Your task to perform on an android device: What's the weather going to be this weekend? Image 0: 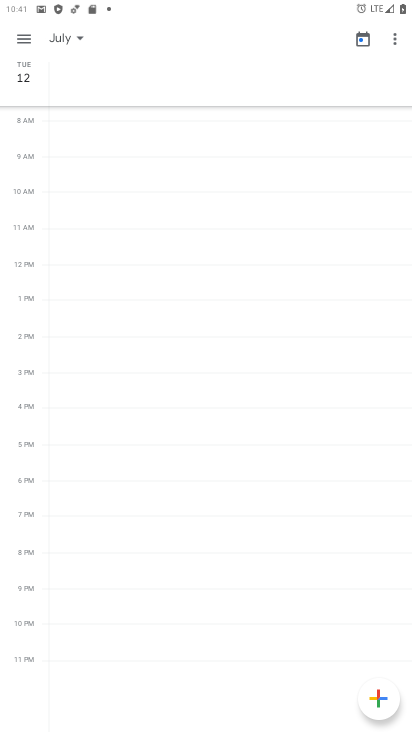
Step 0: press home button
Your task to perform on an android device: What's the weather going to be this weekend? Image 1: 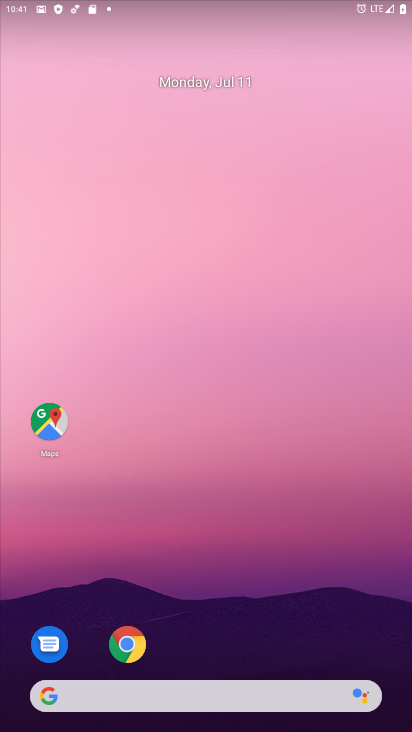
Step 1: drag from (235, 638) to (223, 345)
Your task to perform on an android device: What's the weather going to be this weekend? Image 2: 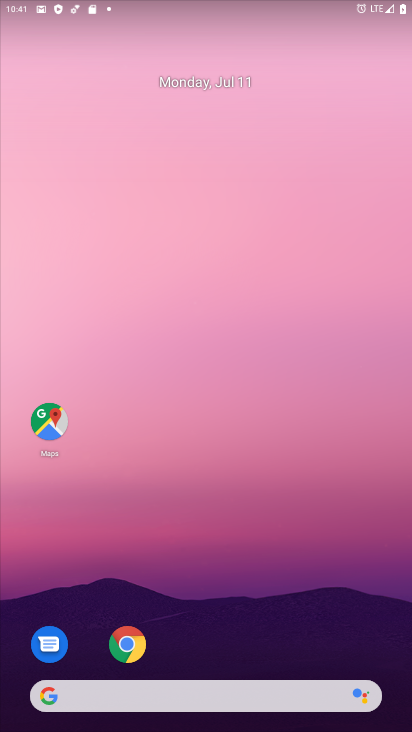
Step 2: drag from (212, 660) to (206, 333)
Your task to perform on an android device: What's the weather going to be this weekend? Image 3: 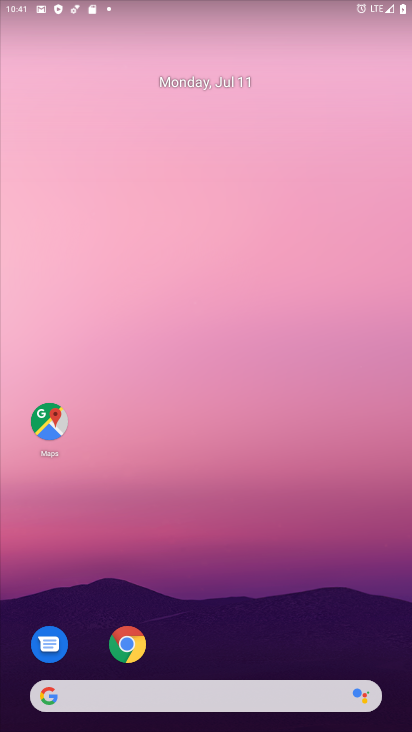
Step 3: click (128, 651)
Your task to perform on an android device: What's the weather going to be this weekend? Image 4: 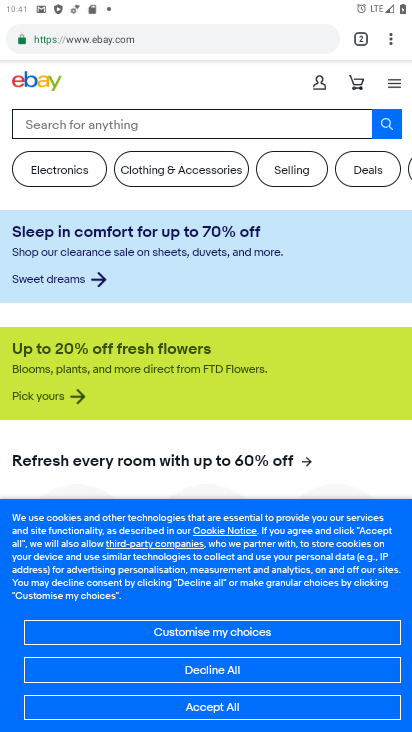
Step 4: click (392, 42)
Your task to perform on an android device: What's the weather going to be this weekend? Image 5: 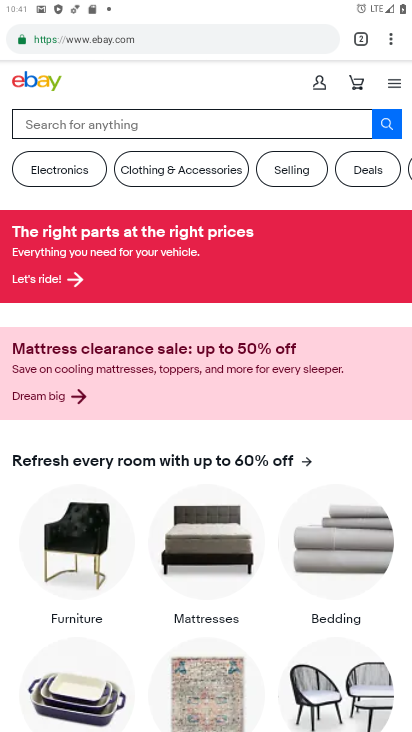
Step 5: click (390, 42)
Your task to perform on an android device: What's the weather going to be this weekend? Image 6: 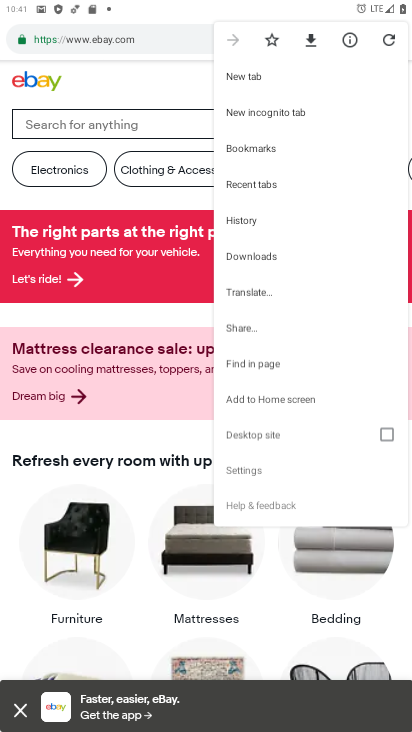
Step 6: click (395, 30)
Your task to perform on an android device: What's the weather going to be this weekend? Image 7: 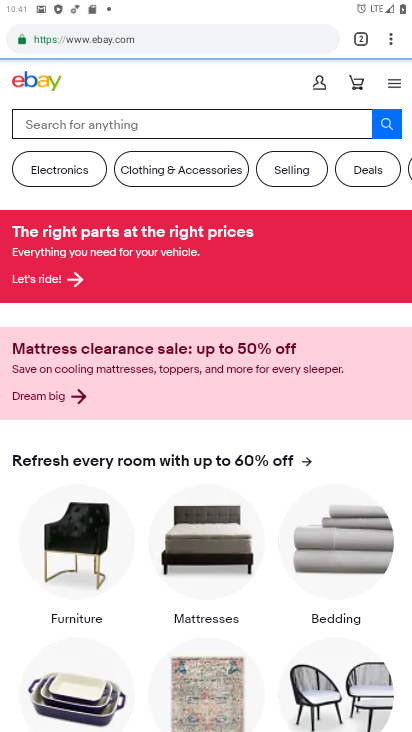
Step 7: click (398, 34)
Your task to perform on an android device: What's the weather going to be this weekend? Image 8: 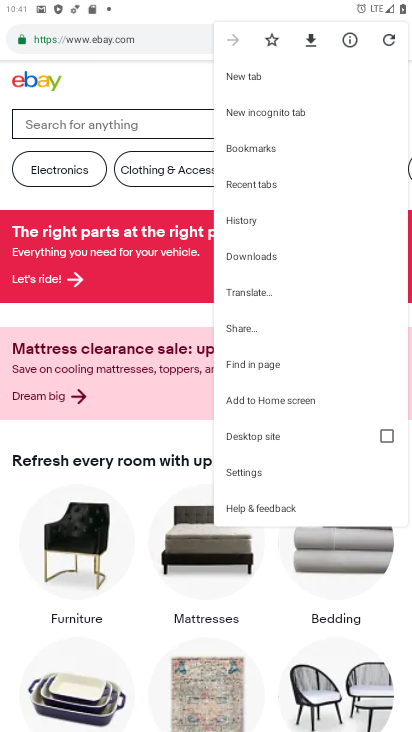
Step 8: click (267, 70)
Your task to perform on an android device: What's the weather going to be this weekend? Image 9: 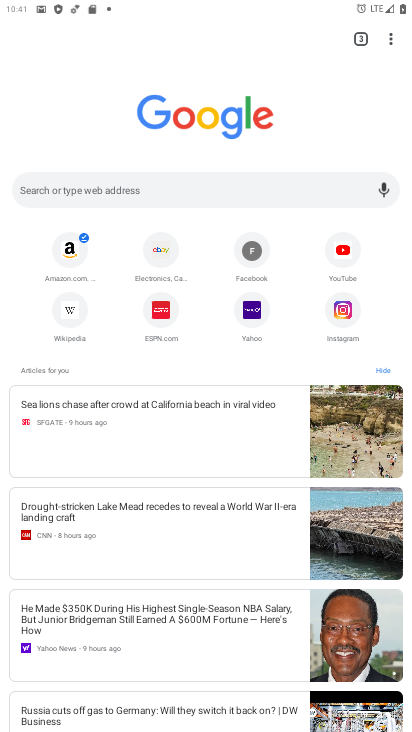
Step 9: click (201, 186)
Your task to perform on an android device: What's the weather going to be this weekend? Image 10: 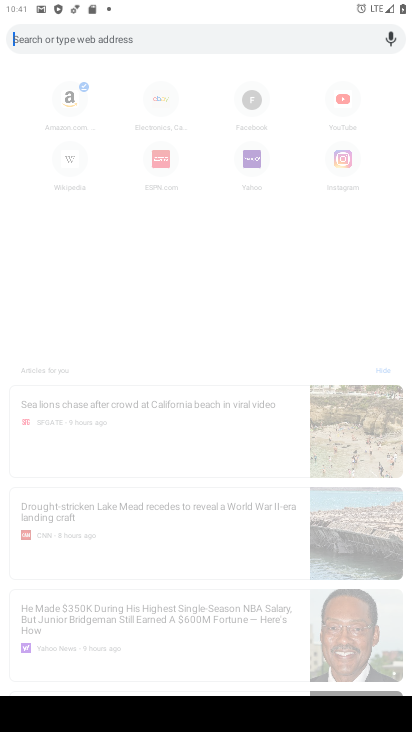
Step 10: type "What's the weather going to be this weekend "
Your task to perform on an android device: What's the weather going to be this weekend? Image 11: 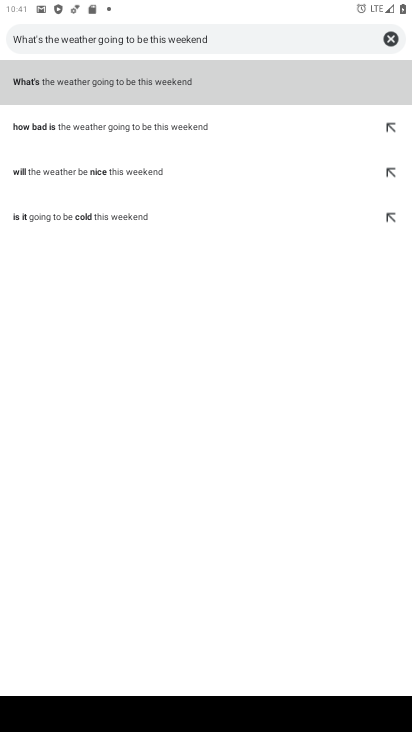
Step 11: click (277, 81)
Your task to perform on an android device: What's the weather going to be this weekend? Image 12: 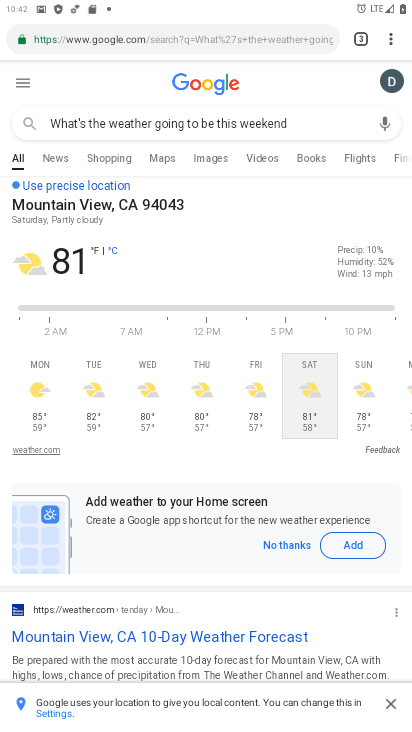
Step 12: task complete